Your task to perform on an android device: Search for the best rated Bluetooth earbuds on Ali express Image 0: 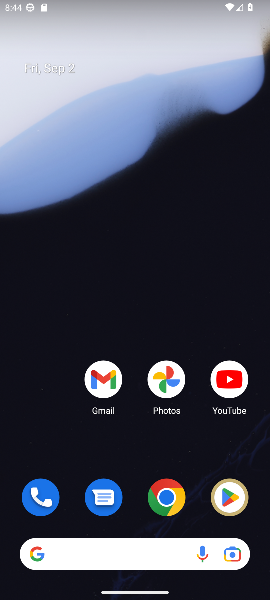
Step 0: drag from (129, 472) to (85, 2)
Your task to perform on an android device: Search for the best rated Bluetooth earbuds on Ali express Image 1: 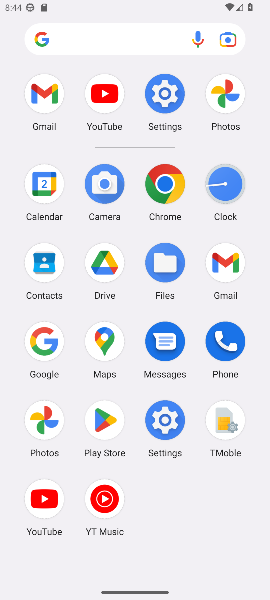
Step 1: click (165, 201)
Your task to perform on an android device: Search for the best rated Bluetooth earbuds on Ali express Image 2: 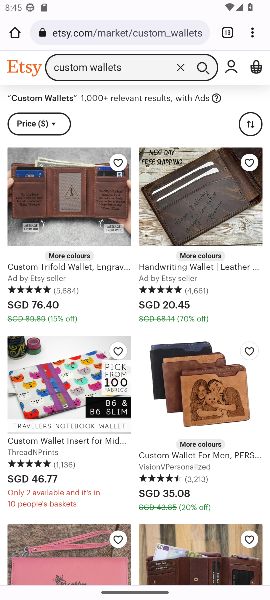
Step 2: click (119, 27)
Your task to perform on an android device: Search for the best rated Bluetooth earbuds on Ali express Image 3: 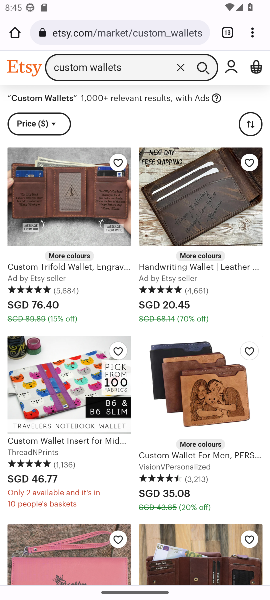
Step 3: click (119, 27)
Your task to perform on an android device: Search for the best rated Bluetooth earbuds on Ali express Image 4: 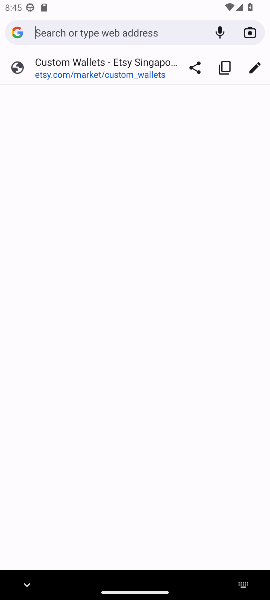
Step 4: type "the best rated Bluetooth earbuds on Ali express"
Your task to perform on an android device: Search for the best rated Bluetooth earbuds on Ali express Image 5: 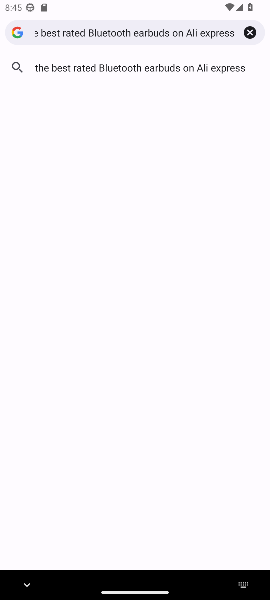
Step 5: click (111, 68)
Your task to perform on an android device: Search for the best rated Bluetooth earbuds on Ali express Image 6: 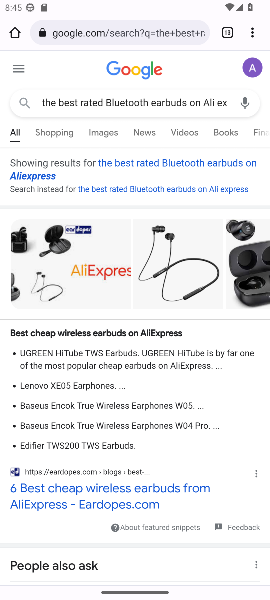
Step 6: task complete